Your task to perform on an android device: open a bookmark in the chrome app Image 0: 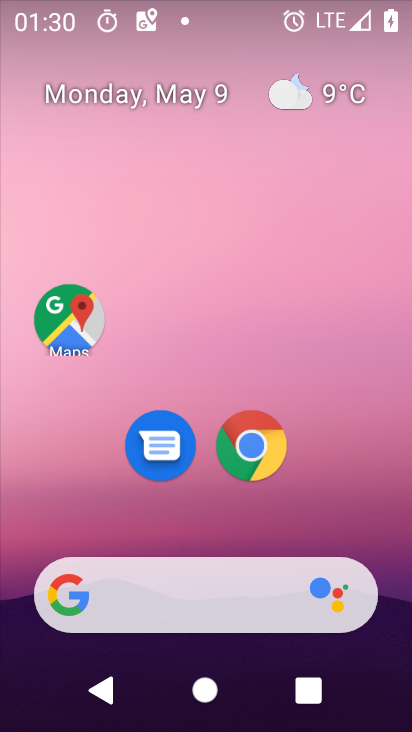
Step 0: click (257, 448)
Your task to perform on an android device: open a bookmark in the chrome app Image 1: 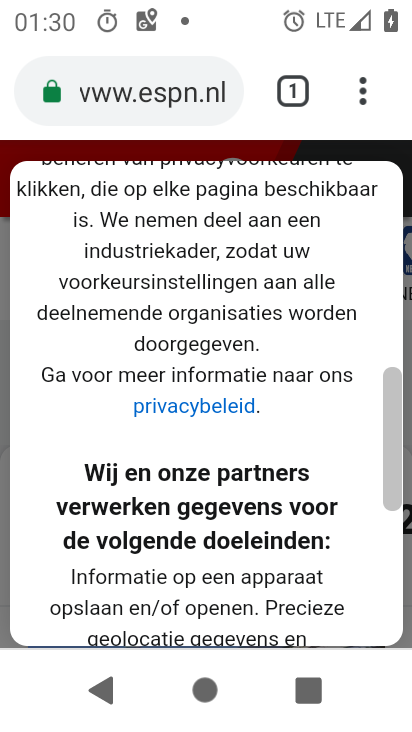
Step 1: drag from (367, 93) to (147, 355)
Your task to perform on an android device: open a bookmark in the chrome app Image 2: 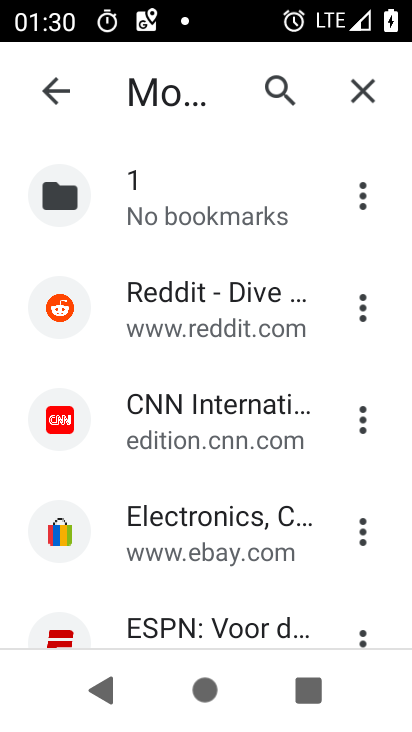
Step 2: click (183, 556)
Your task to perform on an android device: open a bookmark in the chrome app Image 3: 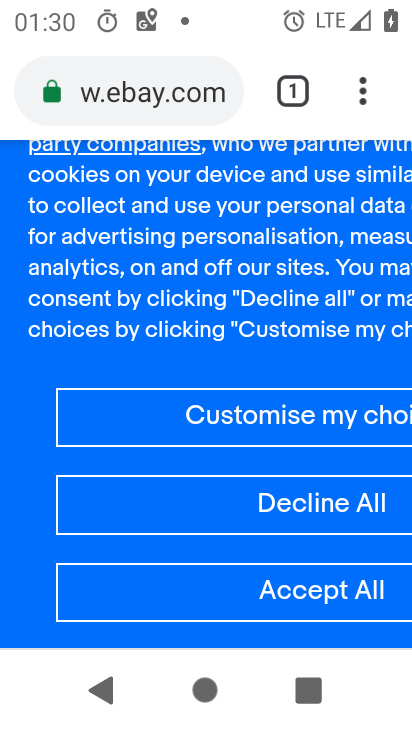
Step 3: task complete